Your task to perform on an android device: all mails in gmail Image 0: 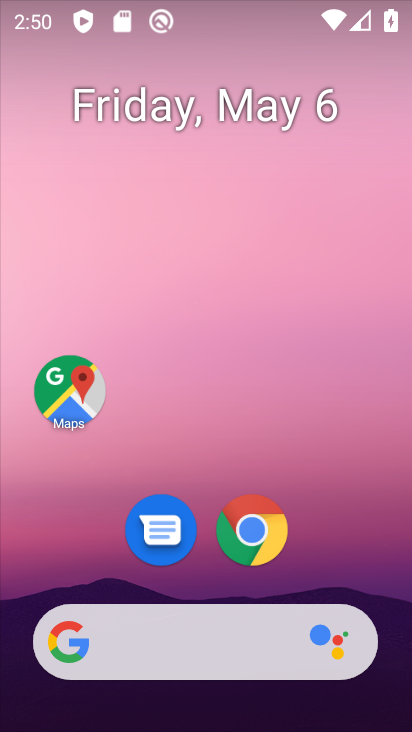
Step 0: drag from (207, 552) to (207, 71)
Your task to perform on an android device: all mails in gmail Image 1: 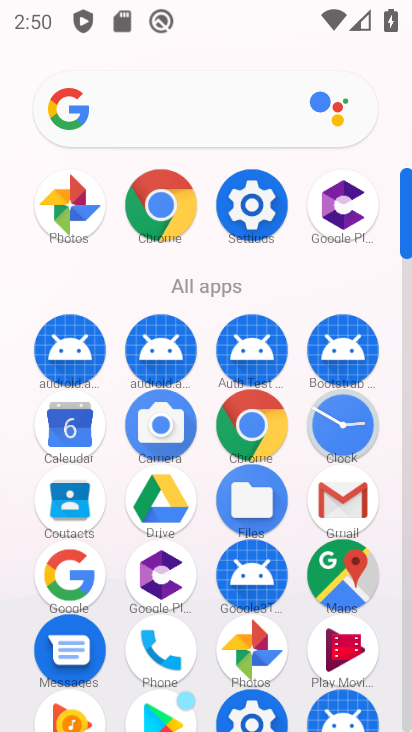
Step 1: click (359, 499)
Your task to perform on an android device: all mails in gmail Image 2: 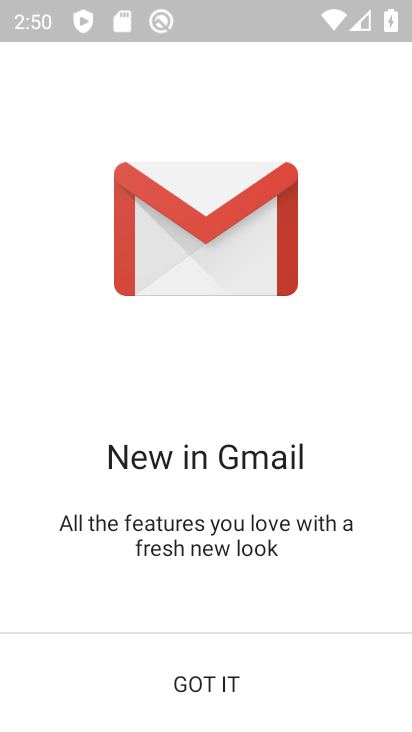
Step 2: click (198, 682)
Your task to perform on an android device: all mails in gmail Image 3: 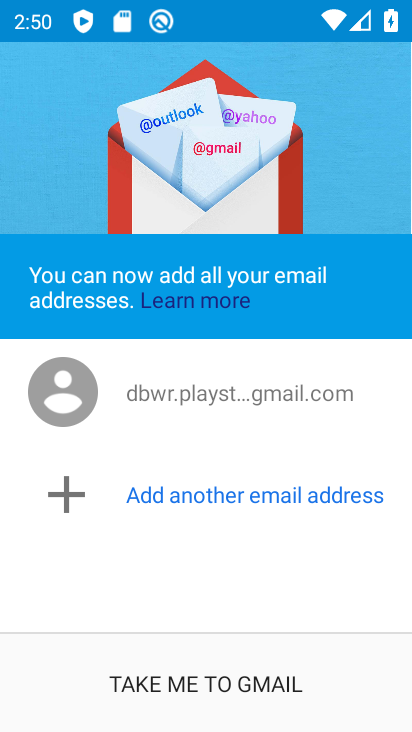
Step 3: click (184, 691)
Your task to perform on an android device: all mails in gmail Image 4: 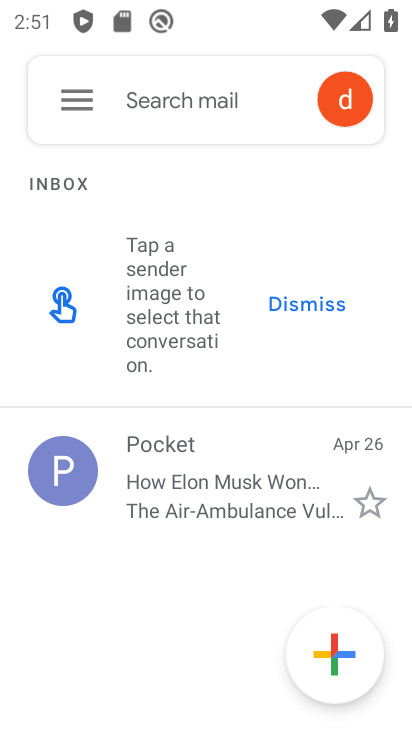
Step 4: click (87, 110)
Your task to perform on an android device: all mails in gmail Image 5: 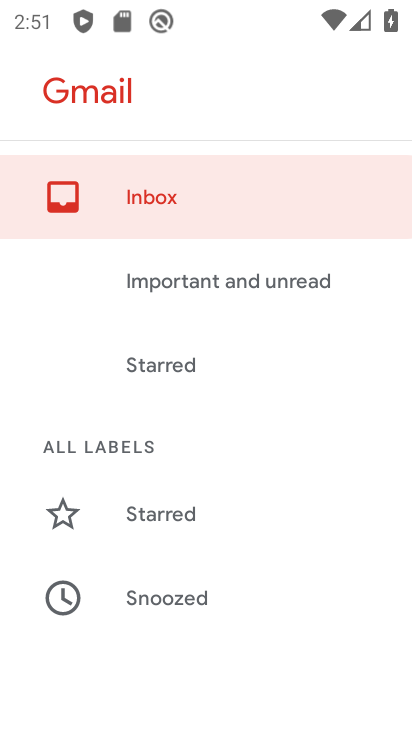
Step 5: drag from (192, 596) to (206, 218)
Your task to perform on an android device: all mails in gmail Image 6: 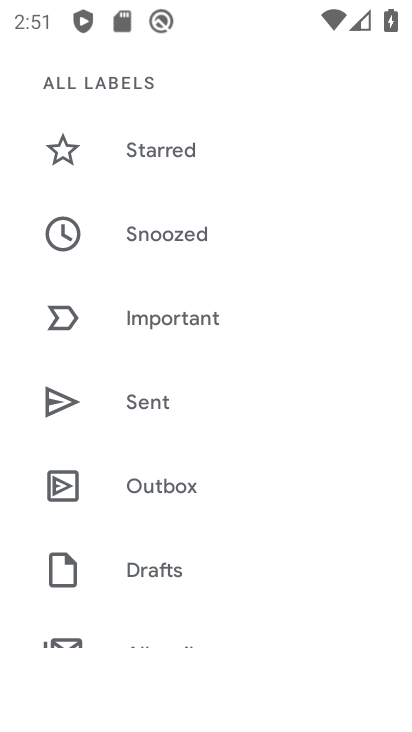
Step 6: drag from (200, 455) to (259, 155)
Your task to perform on an android device: all mails in gmail Image 7: 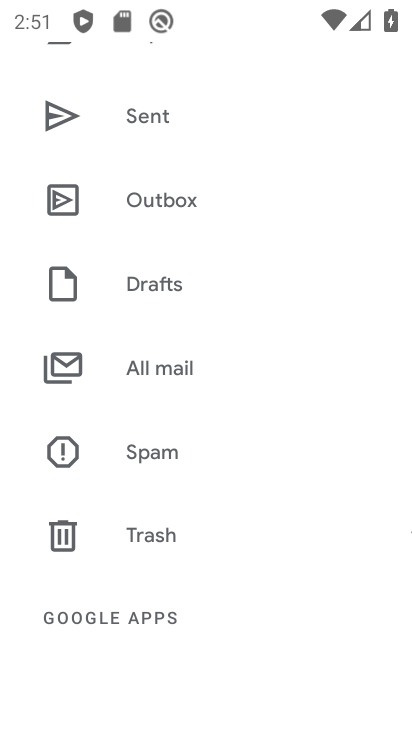
Step 7: click (192, 376)
Your task to perform on an android device: all mails in gmail Image 8: 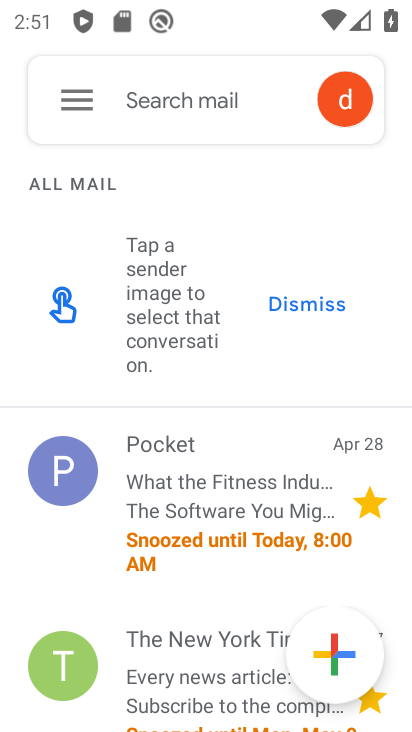
Step 8: task complete